Your task to perform on an android device: open app "Pluto TV - Live TV and Movies" (install if not already installed) Image 0: 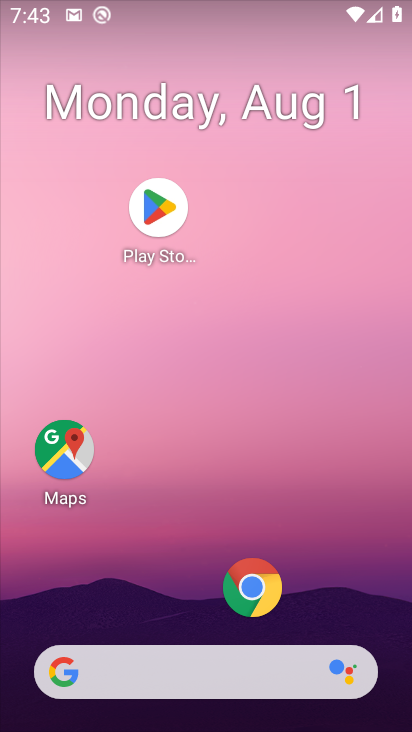
Step 0: click (162, 230)
Your task to perform on an android device: open app "Pluto TV - Live TV and Movies" (install if not already installed) Image 1: 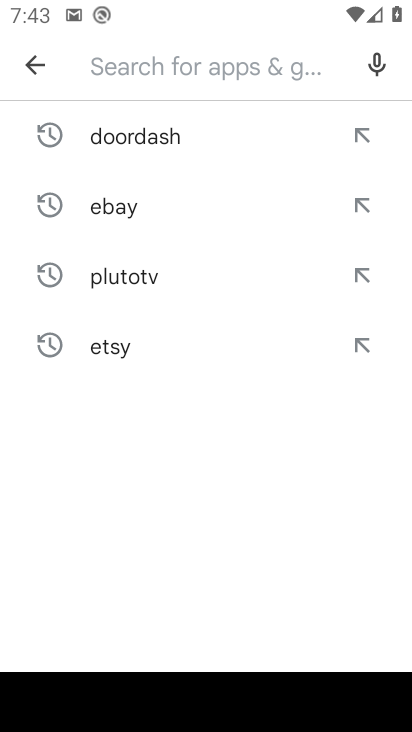
Step 1: click (175, 266)
Your task to perform on an android device: open app "Pluto TV - Live TV and Movies" (install if not already installed) Image 2: 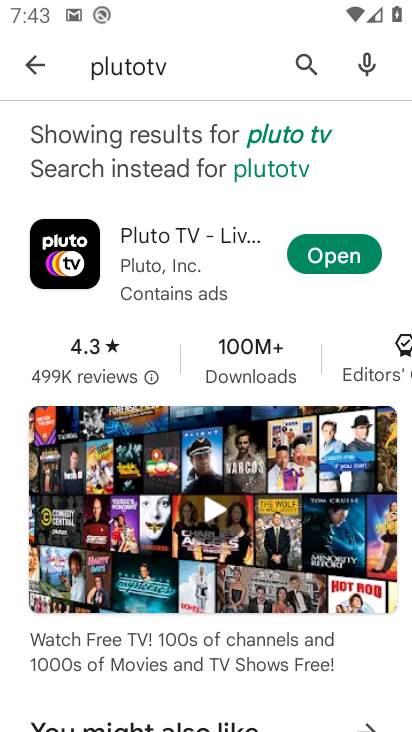
Step 2: click (315, 256)
Your task to perform on an android device: open app "Pluto TV - Live TV and Movies" (install if not already installed) Image 3: 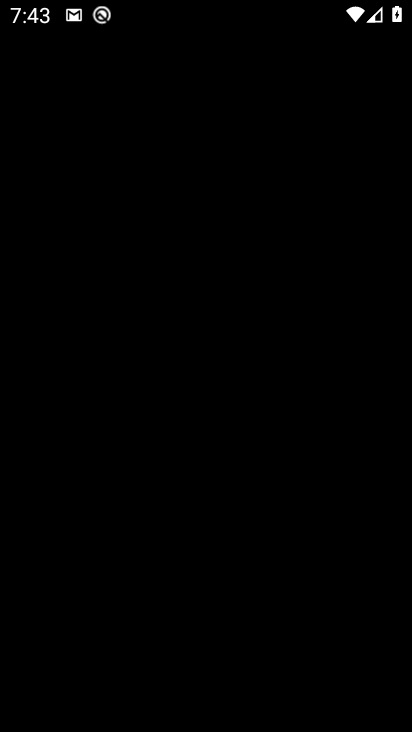
Step 3: task complete